Your task to perform on an android device: install app "Venmo" Image 0: 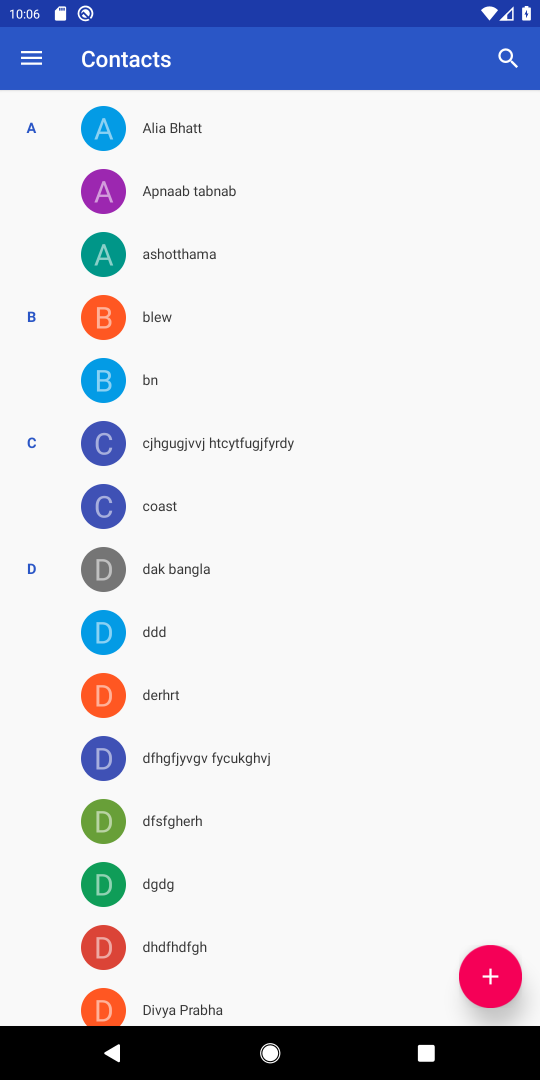
Step 0: press home button
Your task to perform on an android device: install app "Venmo" Image 1: 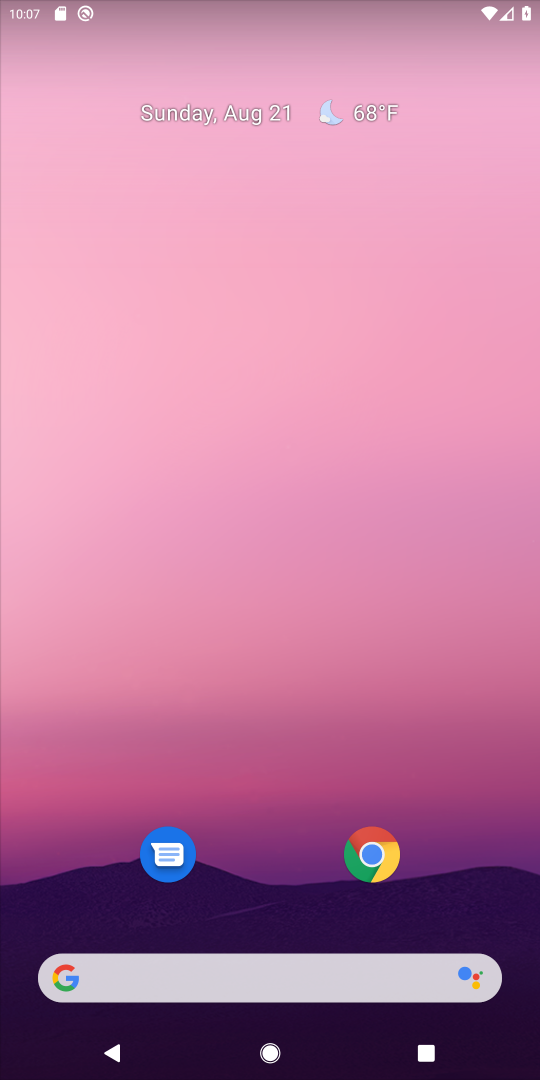
Step 1: drag from (269, 940) to (306, 117)
Your task to perform on an android device: install app "Venmo" Image 2: 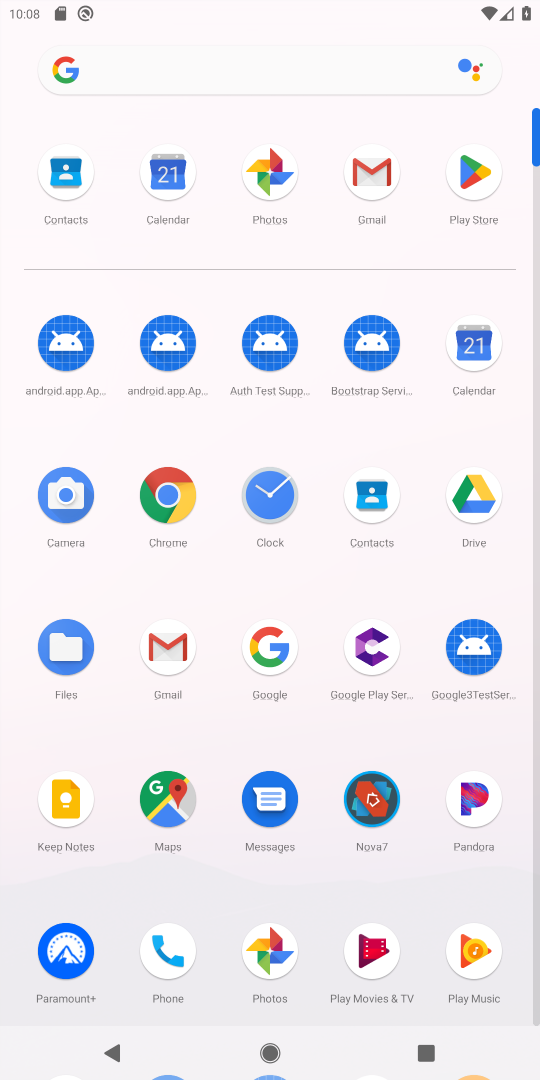
Step 2: click (466, 166)
Your task to perform on an android device: install app "Venmo" Image 3: 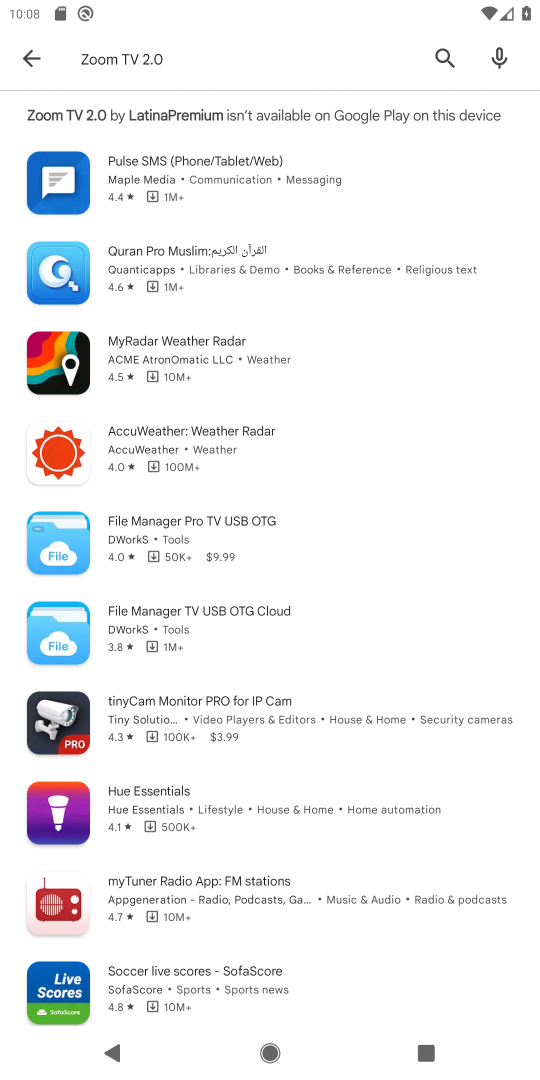
Step 3: click (448, 73)
Your task to perform on an android device: install app "Venmo" Image 4: 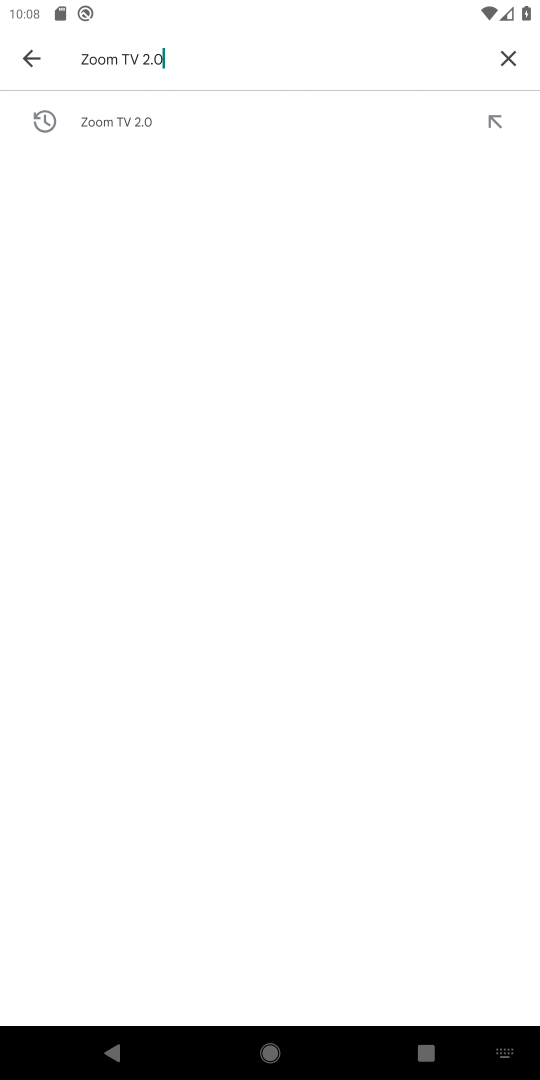
Step 4: click (492, 69)
Your task to perform on an android device: install app "Venmo" Image 5: 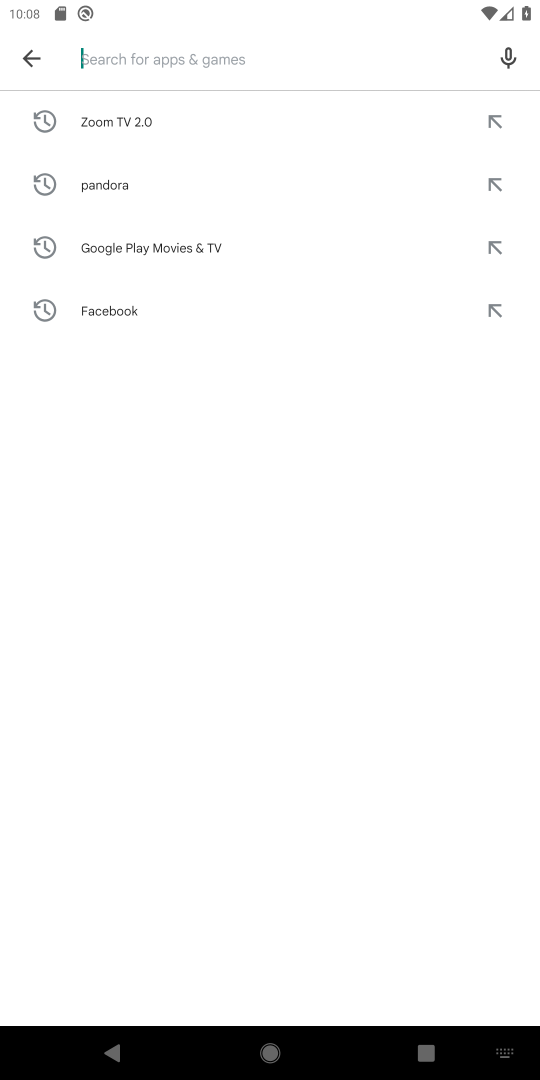
Step 5: type "venmo"
Your task to perform on an android device: install app "Venmo" Image 6: 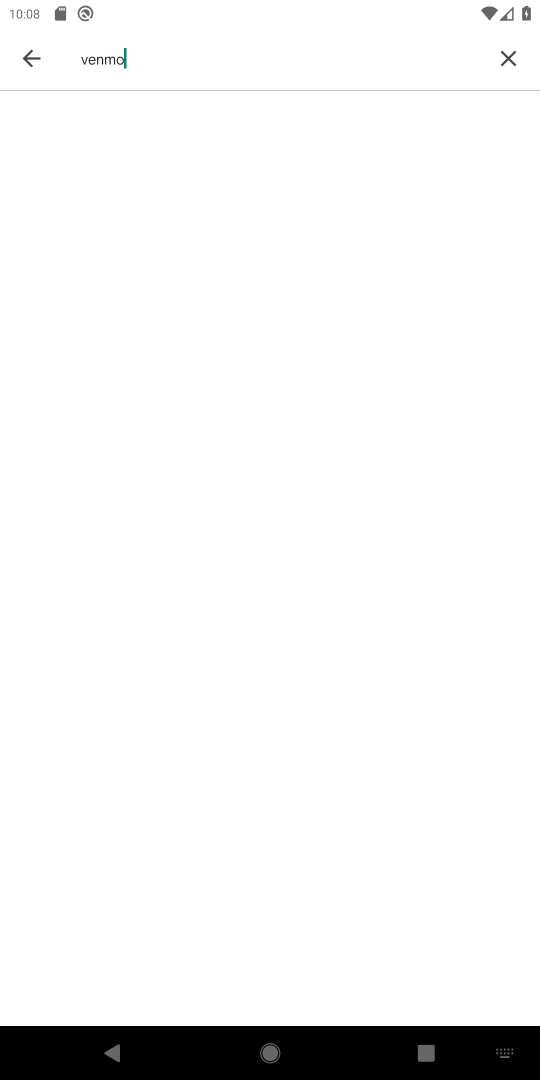
Step 6: task complete